Your task to perform on an android device: What's the news in Taiwan? Image 0: 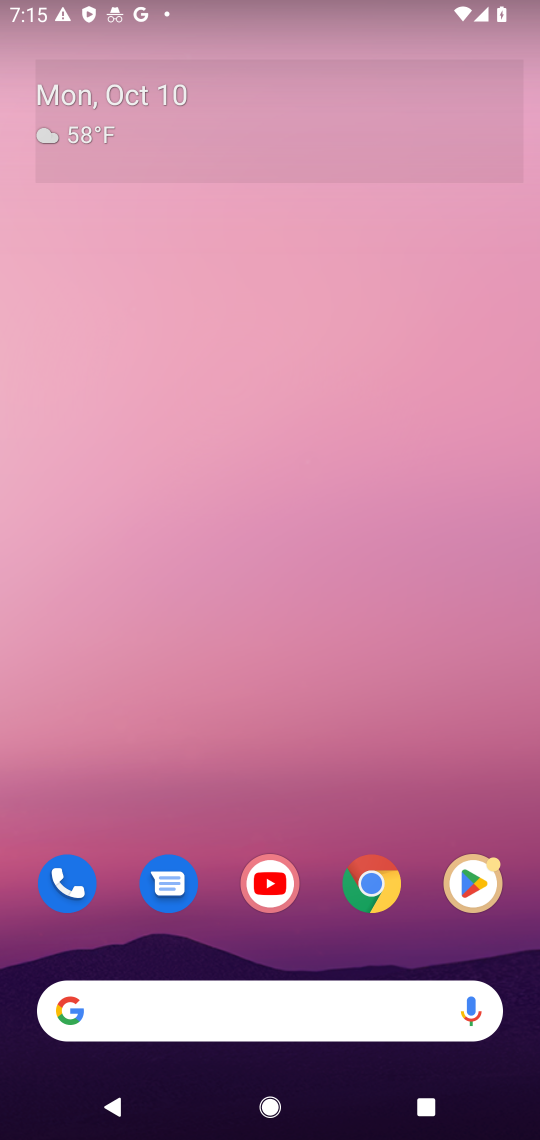
Step 0: drag from (360, 1028) to (383, 485)
Your task to perform on an android device: What's the news in Taiwan? Image 1: 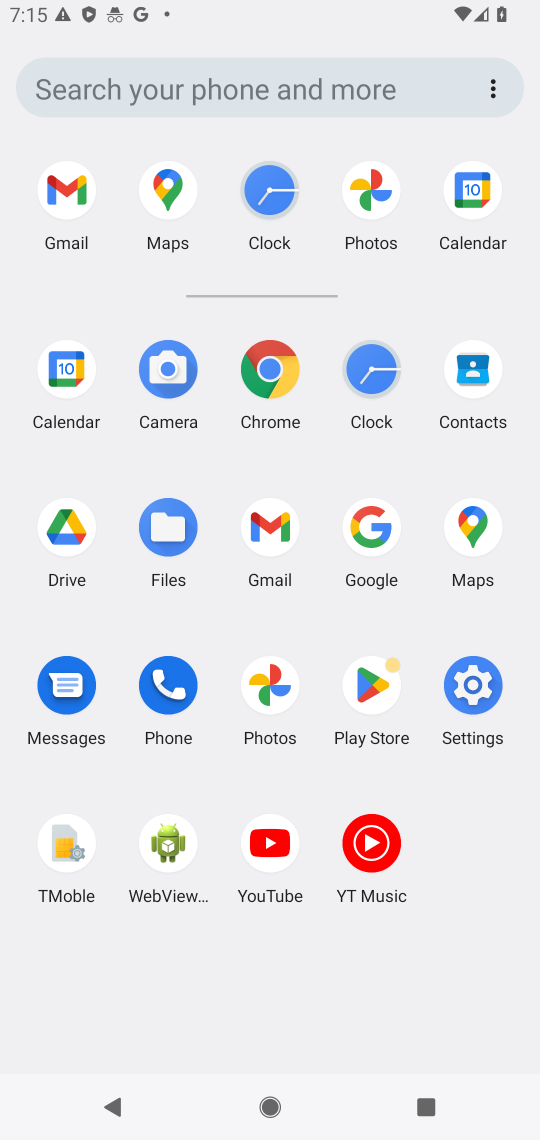
Step 1: click (377, 533)
Your task to perform on an android device: What's the news in Taiwan? Image 2: 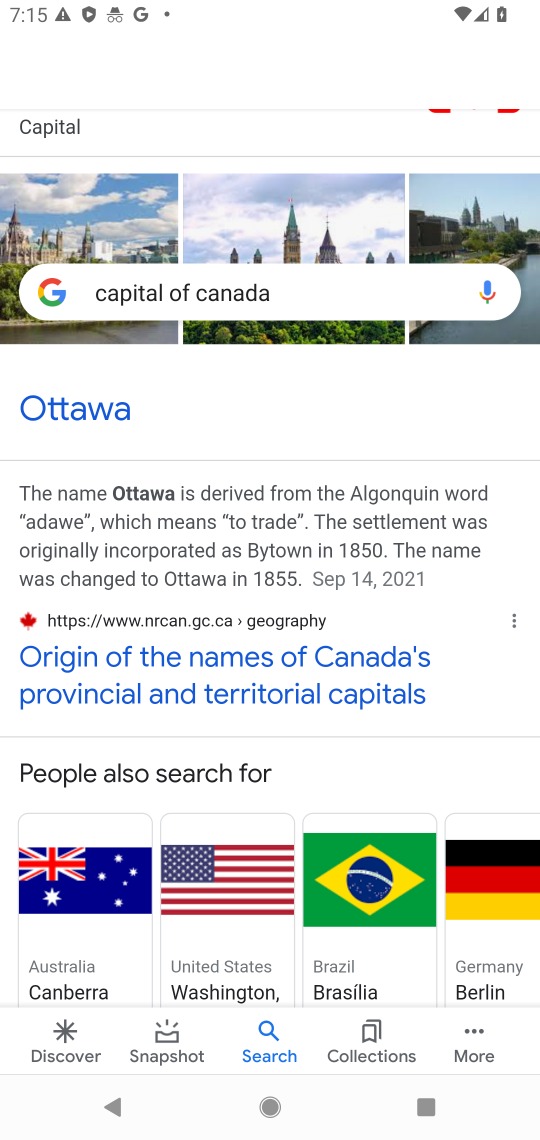
Step 2: click (314, 295)
Your task to perform on an android device: What's the news in Taiwan? Image 3: 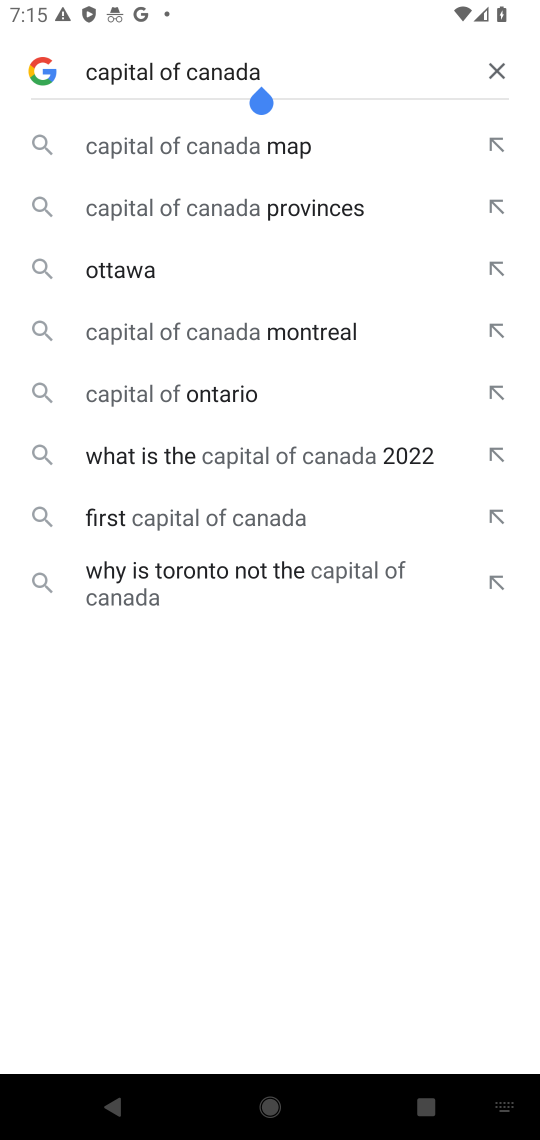
Step 3: click (497, 80)
Your task to perform on an android device: What's the news in Taiwan? Image 4: 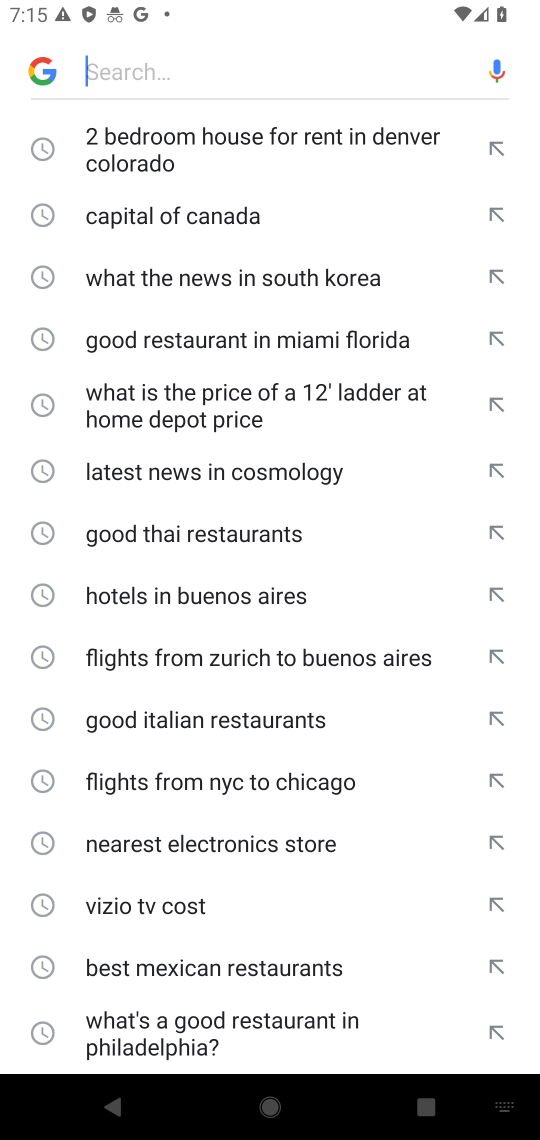
Step 4: type "news in Taiwan"
Your task to perform on an android device: What's the news in Taiwan? Image 5: 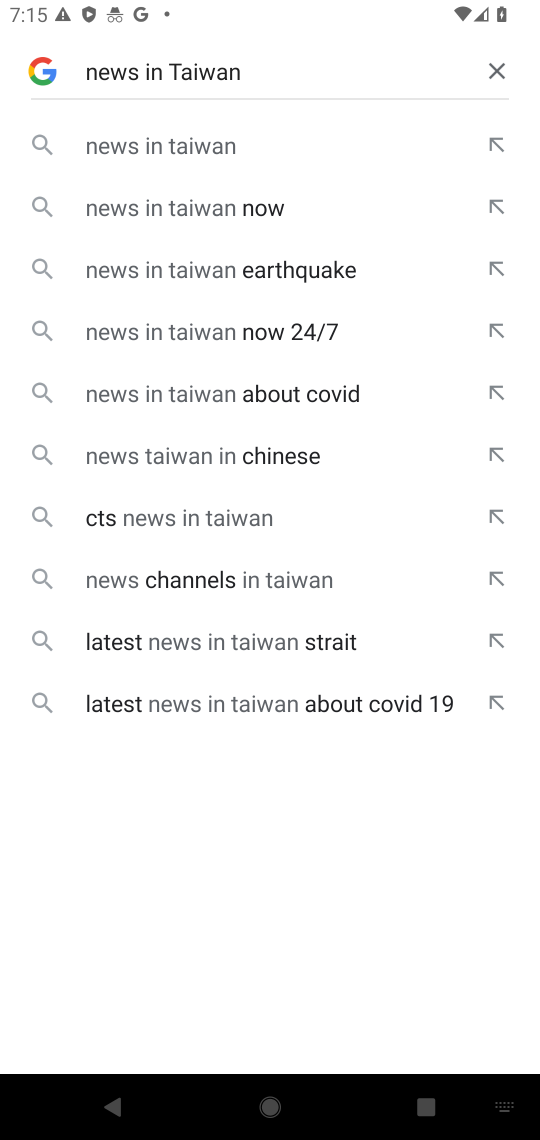
Step 5: click (290, 143)
Your task to perform on an android device: What's the news in Taiwan? Image 6: 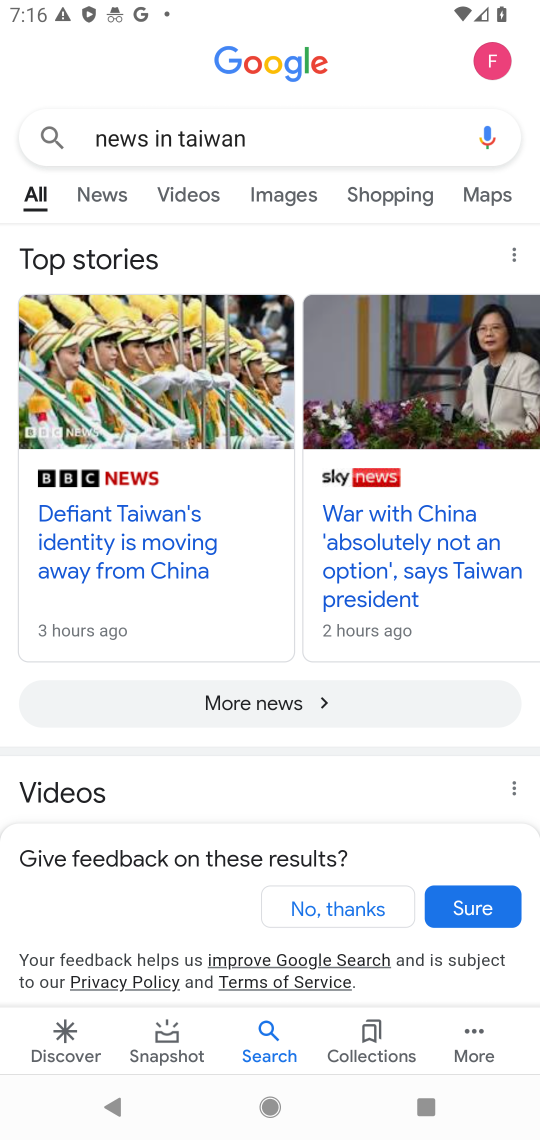
Step 6: click (106, 193)
Your task to perform on an android device: What's the news in Taiwan? Image 7: 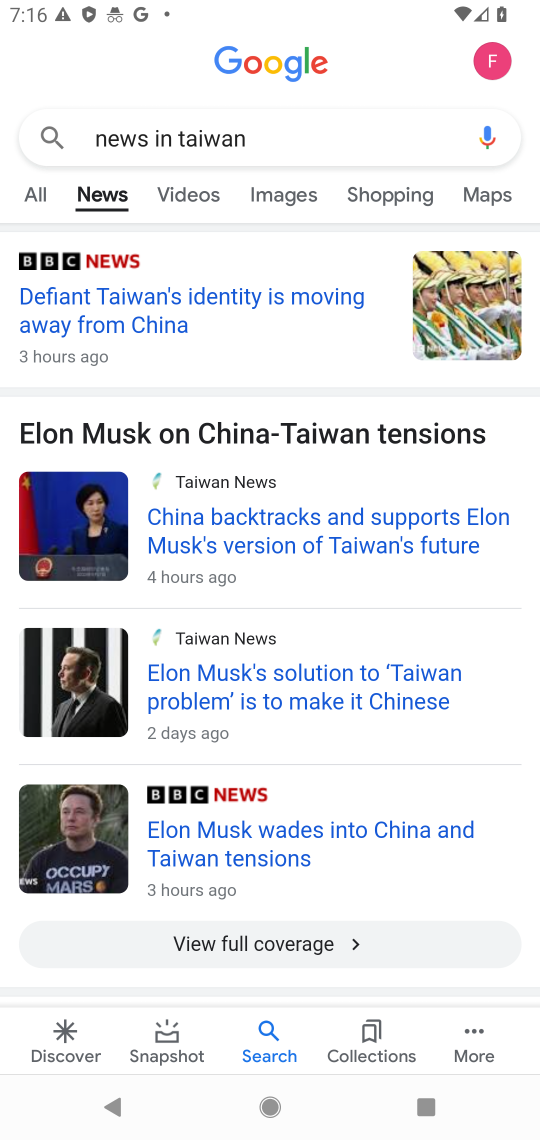
Step 7: task complete